Your task to perform on an android device: Turn on the flashlight Image 0: 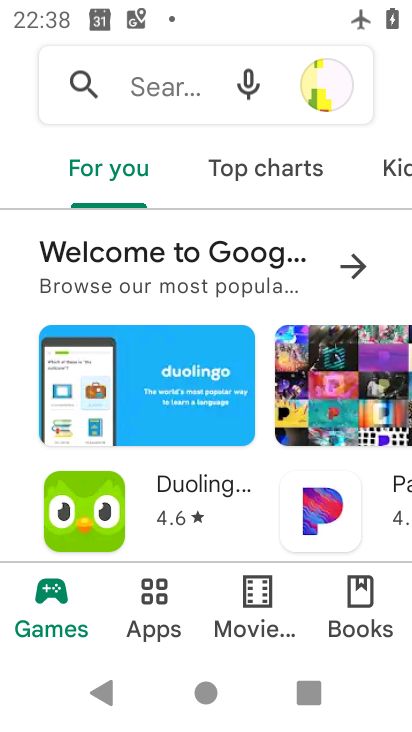
Step 0: press home button
Your task to perform on an android device: Turn on the flashlight Image 1: 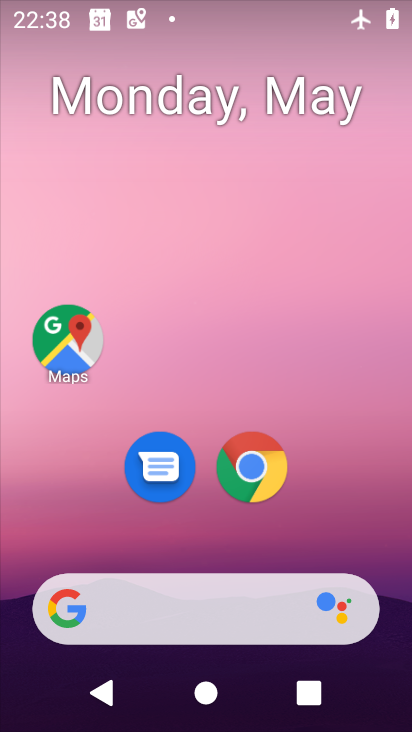
Step 1: drag from (333, 369) to (359, 196)
Your task to perform on an android device: Turn on the flashlight Image 2: 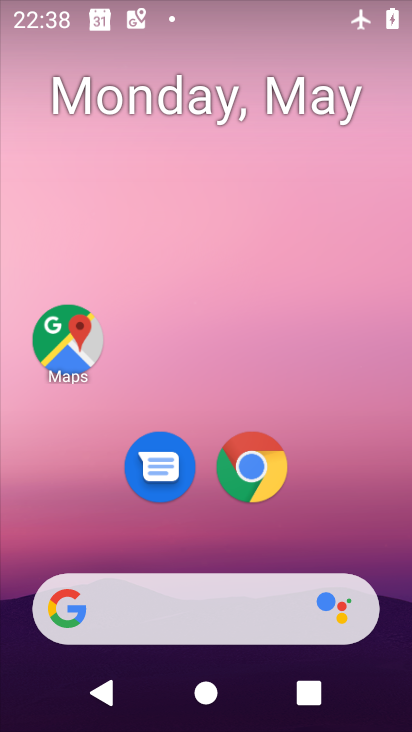
Step 2: drag from (280, 496) to (322, 139)
Your task to perform on an android device: Turn on the flashlight Image 3: 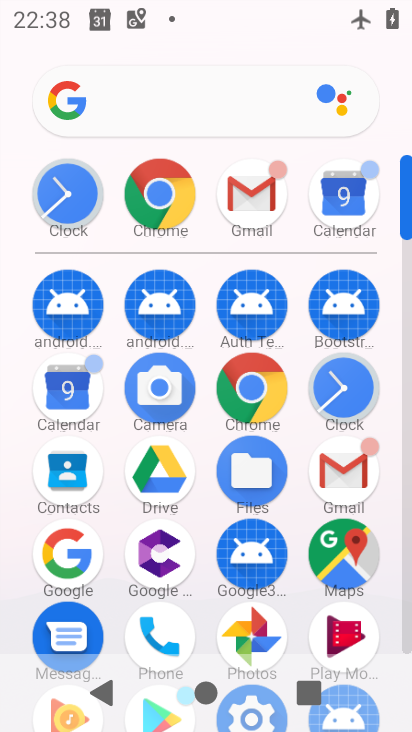
Step 3: drag from (296, 562) to (330, 269)
Your task to perform on an android device: Turn on the flashlight Image 4: 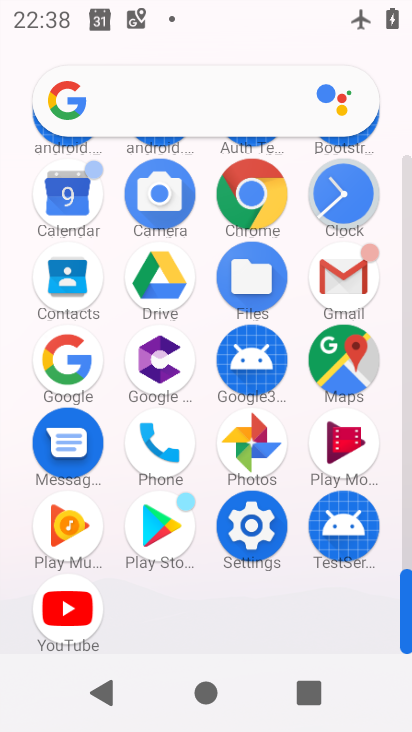
Step 4: click (247, 544)
Your task to perform on an android device: Turn on the flashlight Image 5: 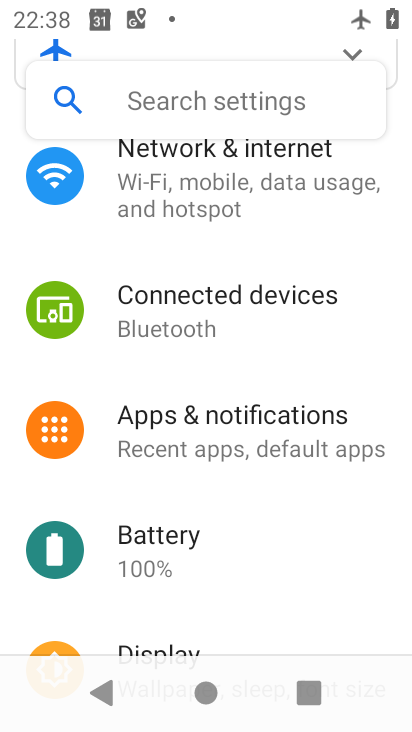
Step 5: task complete